Your task to perform on an android device: check data usage Image 0: 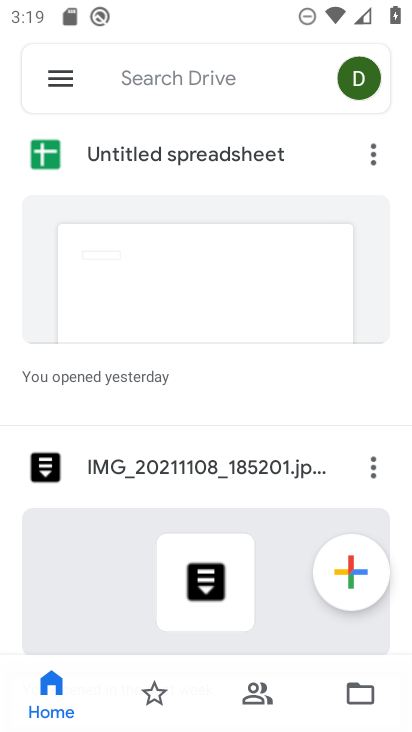
Step 0: press home button
Your task to perform on an android device: check data usage Image 1: 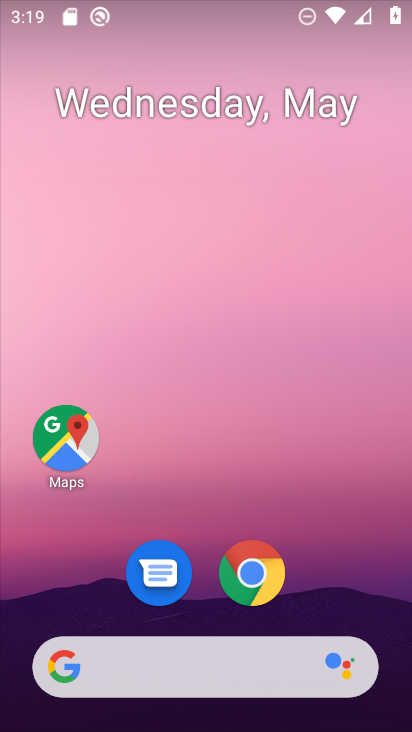
Step 1: drag from (341, 581) to (404, 3)
Your task to perform on an android device: check data usage Image 2: 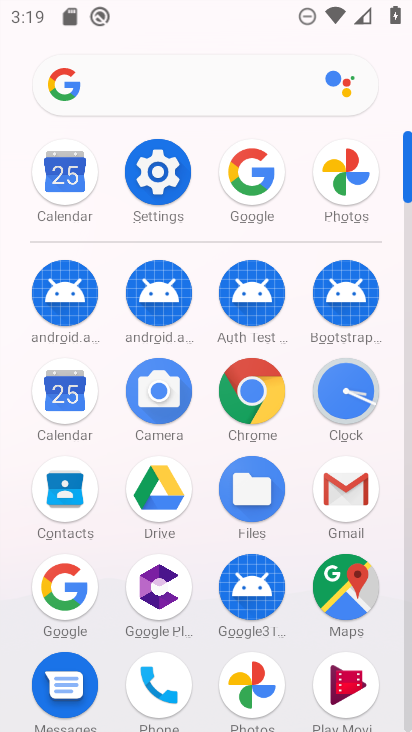
Step 2: click (165, 170)
Your task to perform on an android device: check data usage Image 3: 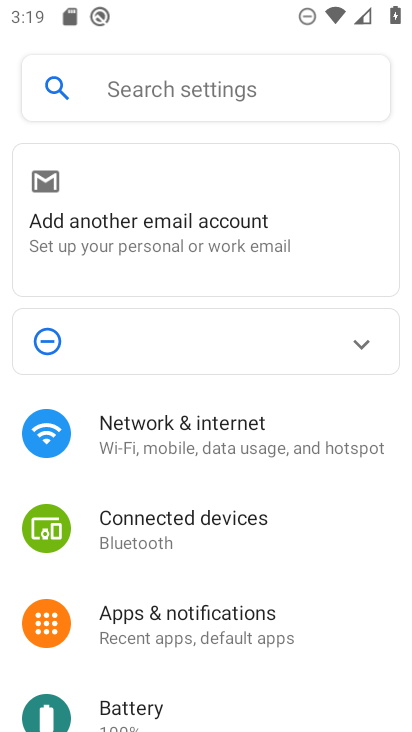
Step 3: click (248, 452)
Your task to perform on an android device: check data usage Image 4: 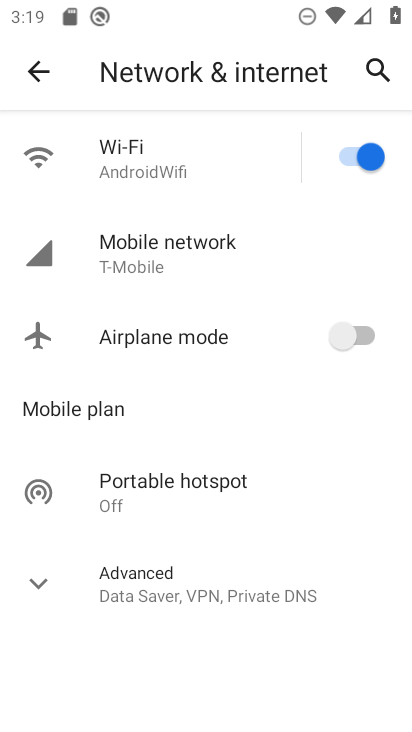
Step 4: click (243, 258)
Your task to perform on an android device: check data usage Image 5: 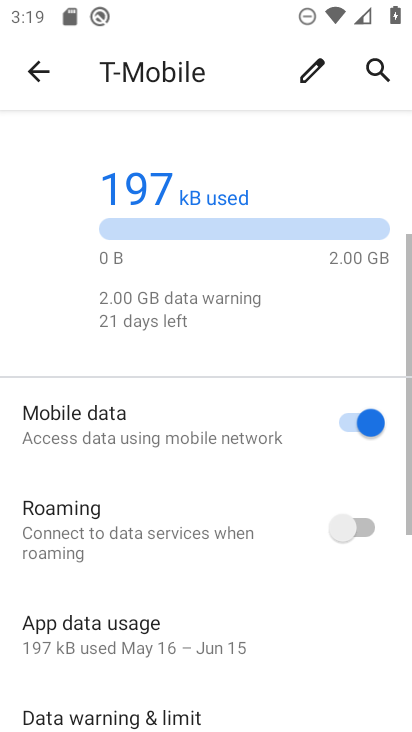
Step 5: click (198, 640)
Your task to perform on an android device: check data usage Image 6: 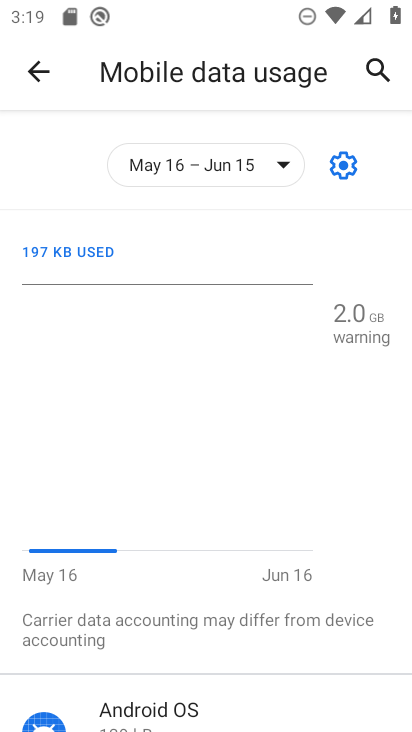
Step 6: task complete